Your task to perform on an android device: Add "dell alienware" to the cart on ebay Image 0: 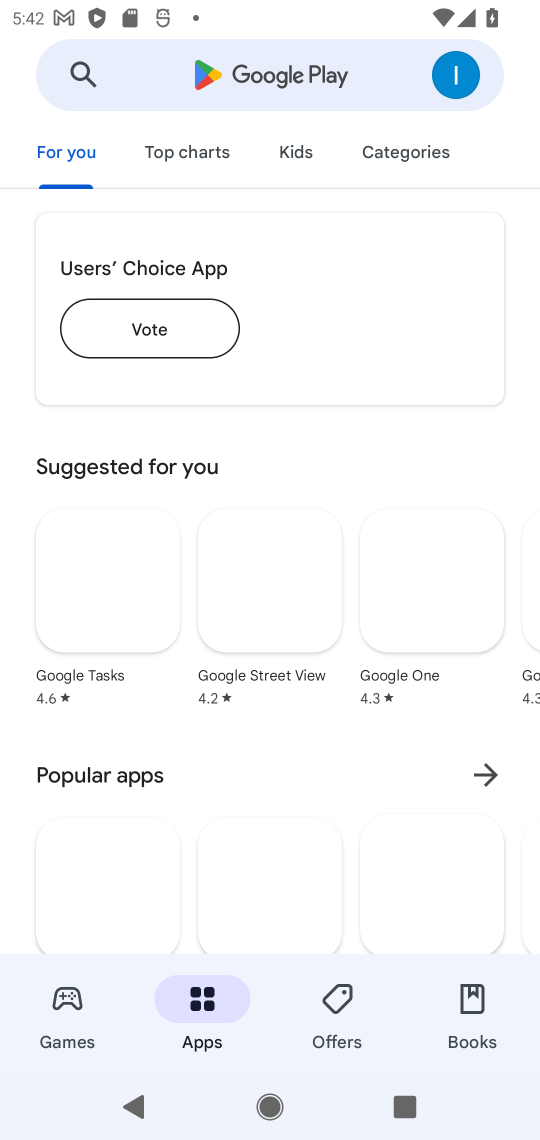
Step 0: press home button
Your task to perform on an android device: Add "dell alienware" to the cart on ebay Image 1: 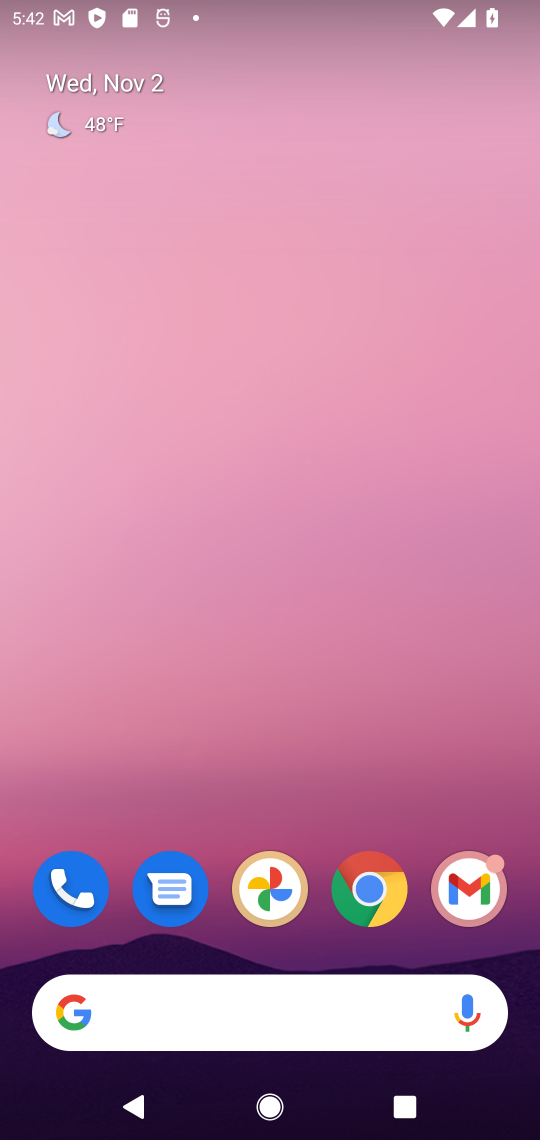
Step 1: click (364, 872)
Your task to perform on an android device: Add "dell alienware" to the cart on ebay Image 2: 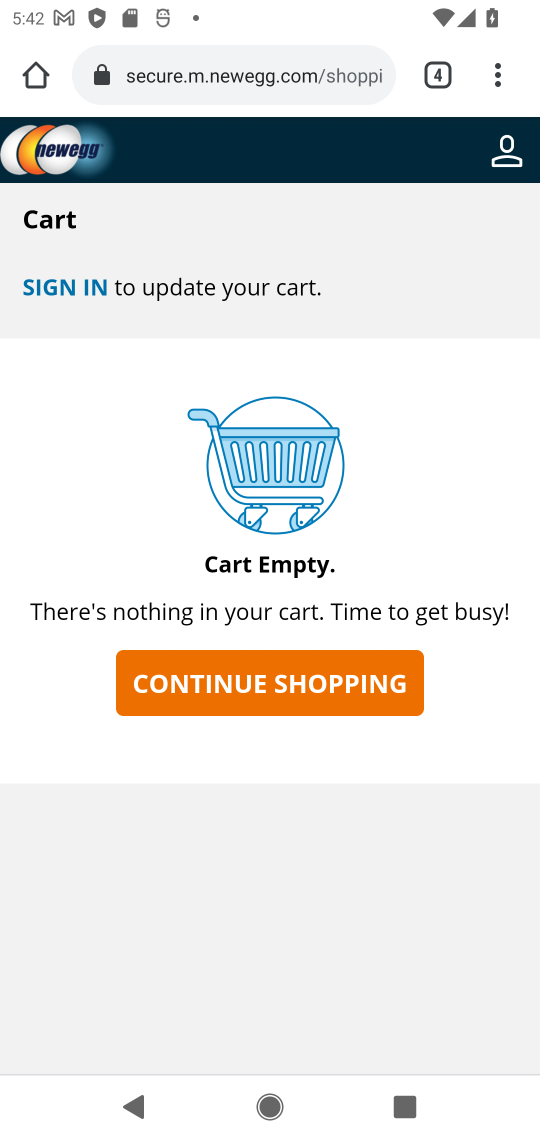
Step 2: click (295, 71)
Your task to perform on an android device: Add "dell alienware" to the cart on ebay Image 3: 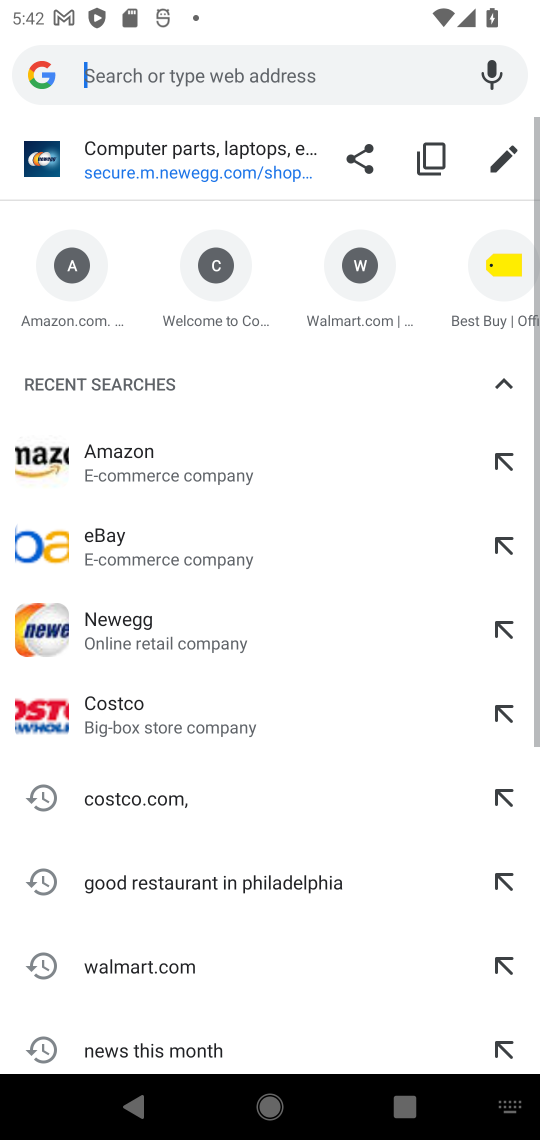
Step 3: click (88, 544)
Your task to perform on an android device: Add "dell alienware" to the cart on ebay Image 4: 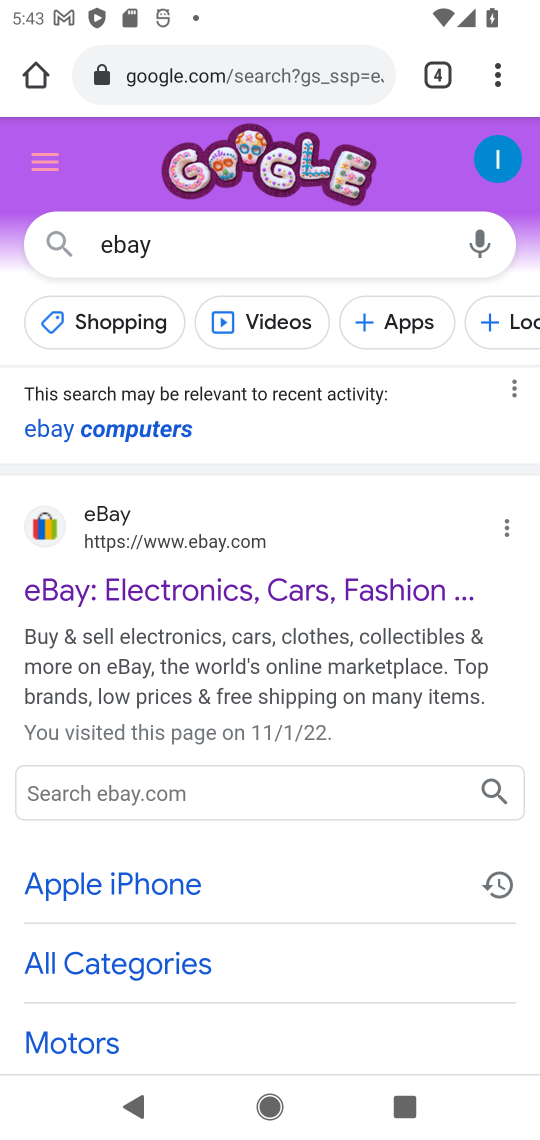
Step 4: click (142, 599)
Your task to perform on an android device: Add "dell alienware" to the cart on ebay Image 5: 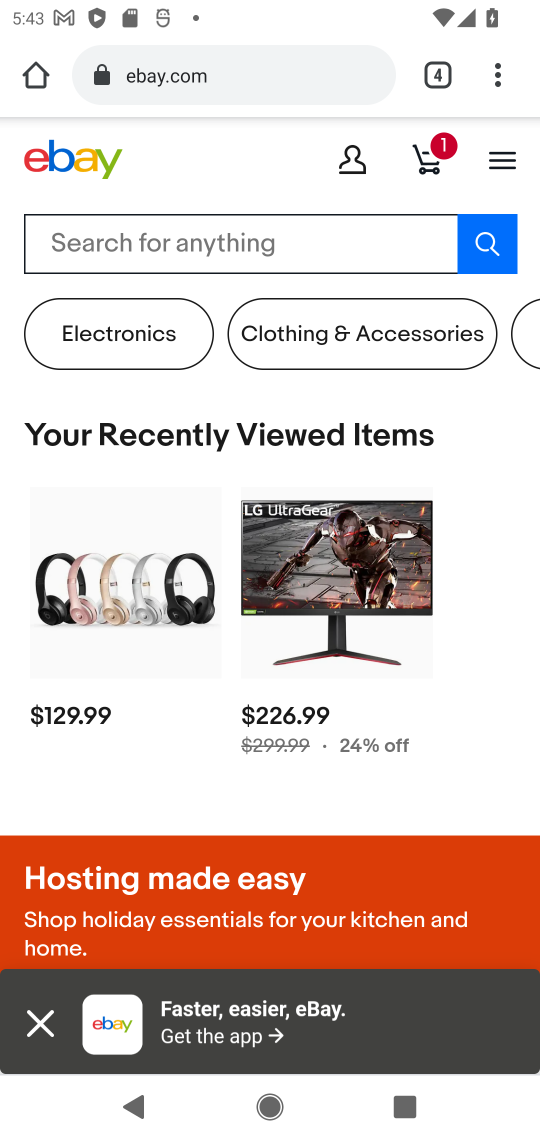
Step 5: click (166, 239)
Your task to perform on an android device: Add "dell alienware" to the cart on ebay Image 6: 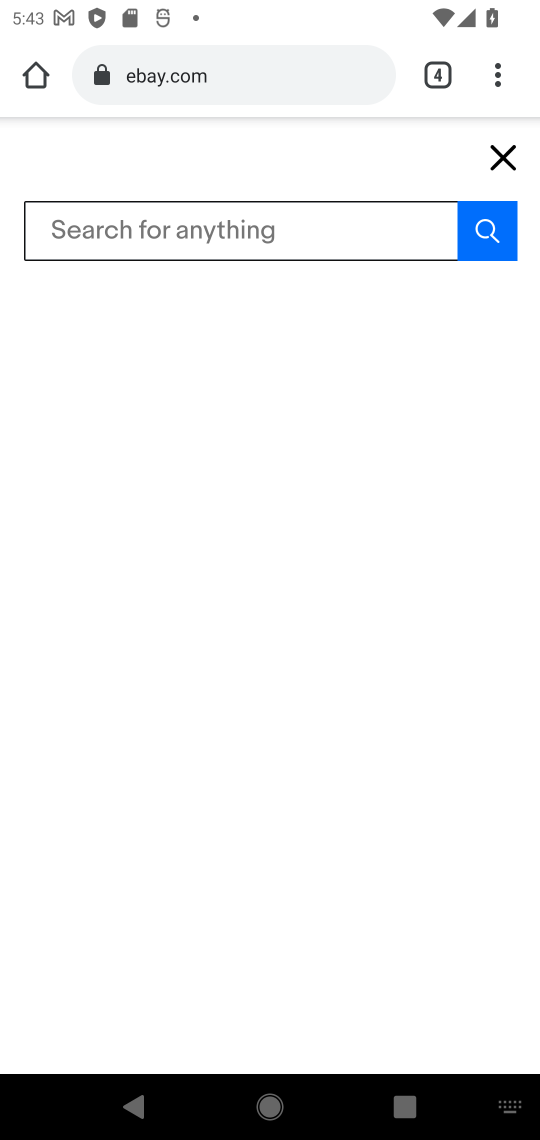
Step 6: type "dell alienware"
Your task to perform on an android device: Add "dell alienware" to the cart on ebay Image 7: 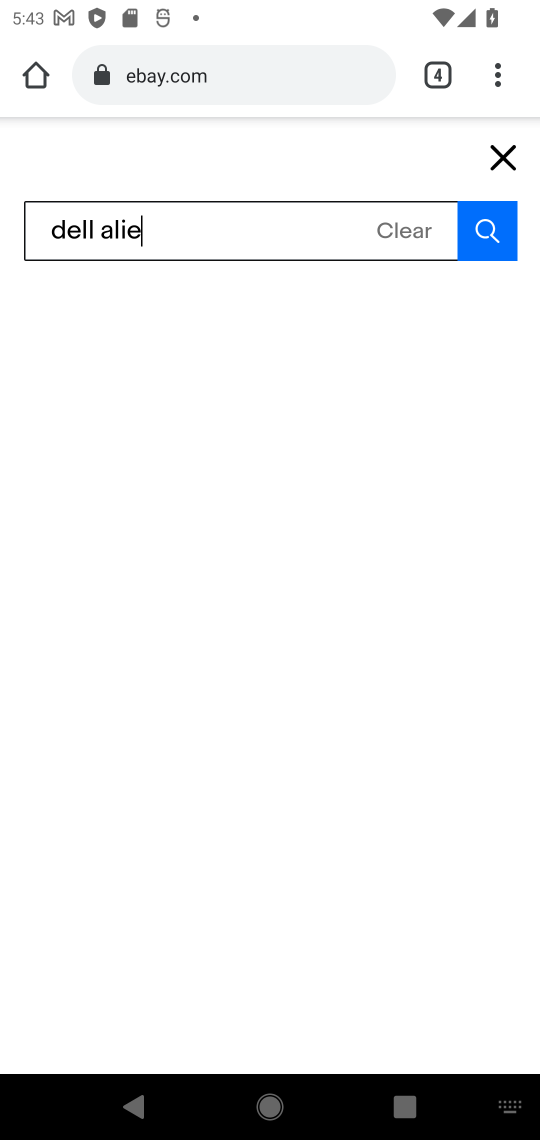
Step 7: press enter
Your task to perform on an android device: Add "dell alienware" to the cart on ebay Image 8: 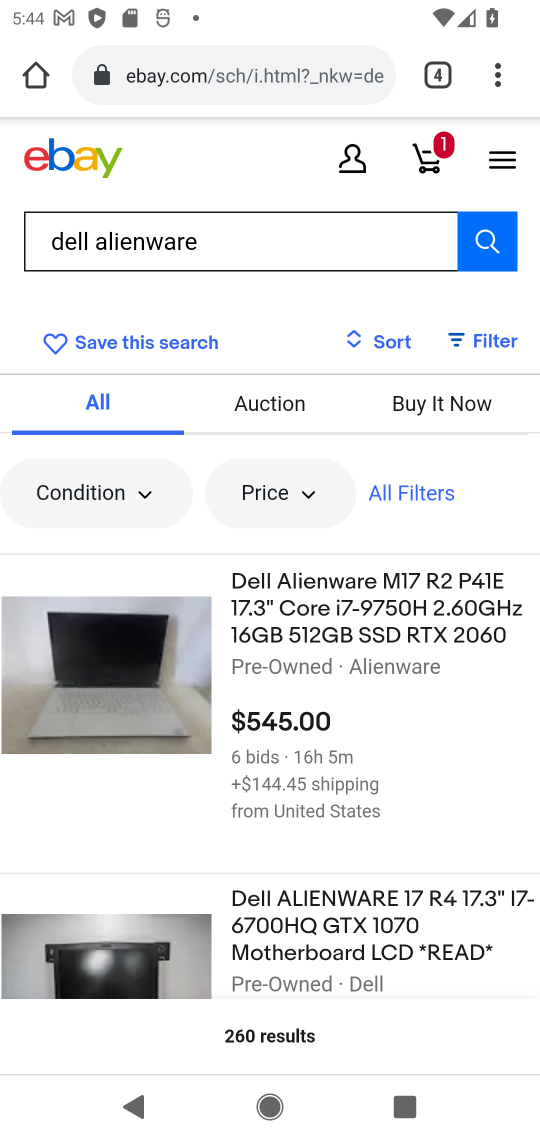
Step 8: click (353, 704)
Your task to perform on an android device: Add "dell alienware" to the cart on ebay Image 9: 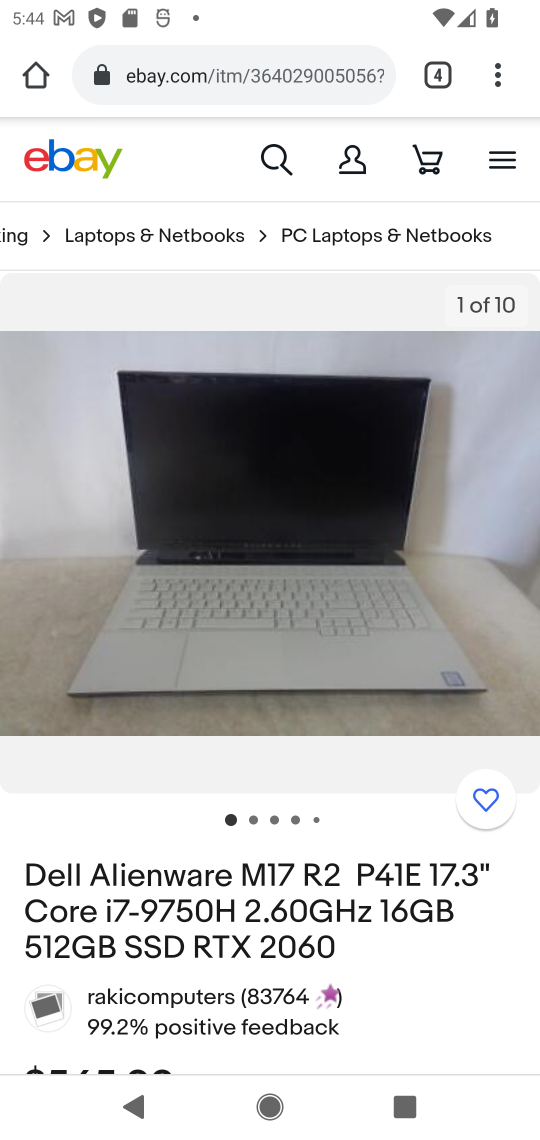
Step 9: drag from (256, 950) to (366, 110)
Your task to perform on an android device: Add "dell alienware" to the cart on ebay Image 10: 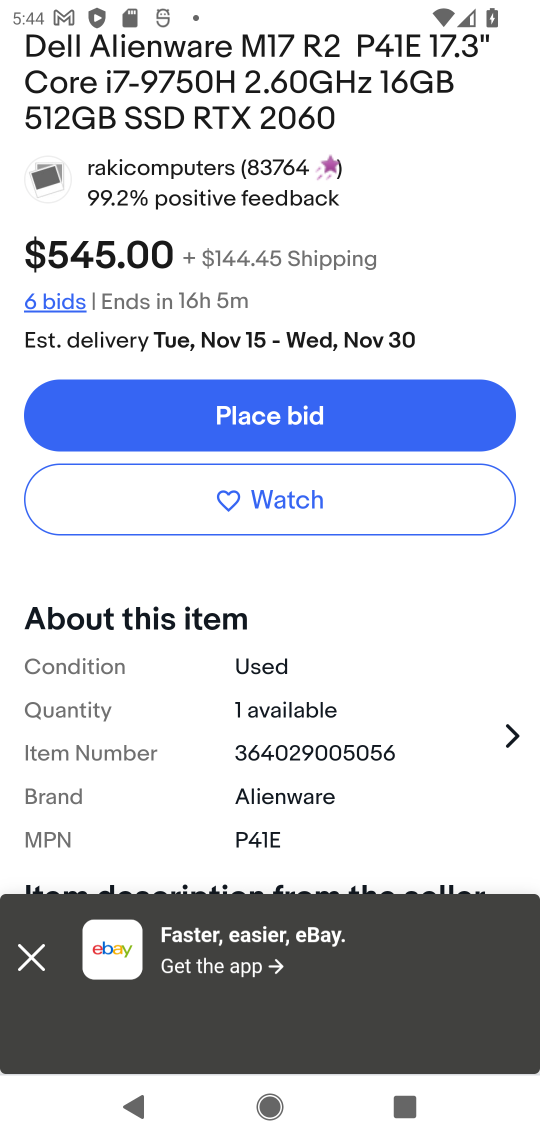
Step 10: drag from (297, 668) to (394, 25)
Your task to perform on an android device: Add "dell alienware" to the cart on ebay Image 11: 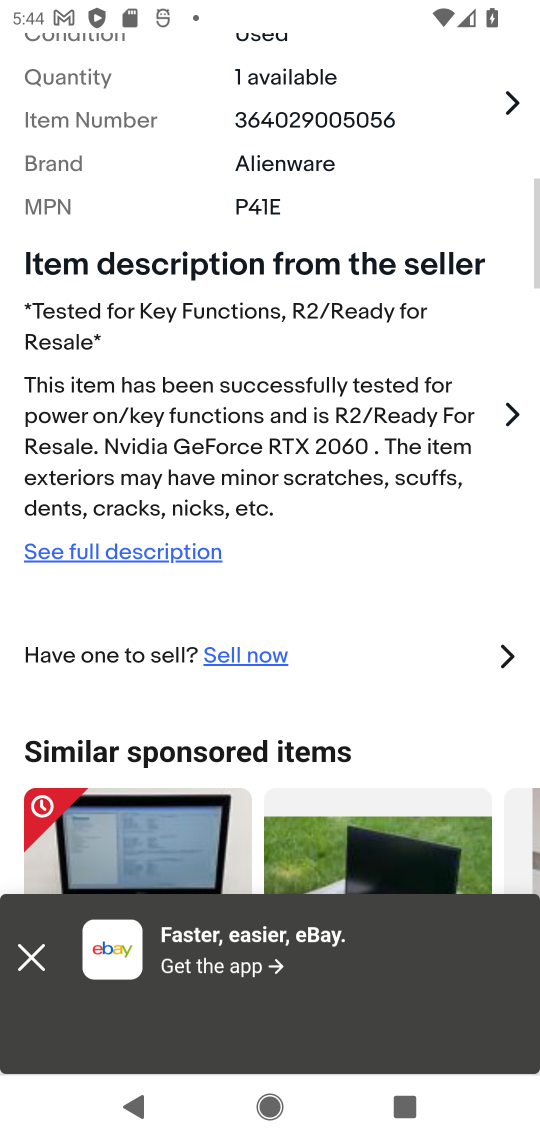
Step 11: drag from (351, 609) to (283, 767)
Your task to perform on an android device: Add "dell alienware" to the cart on ebay Image 12: 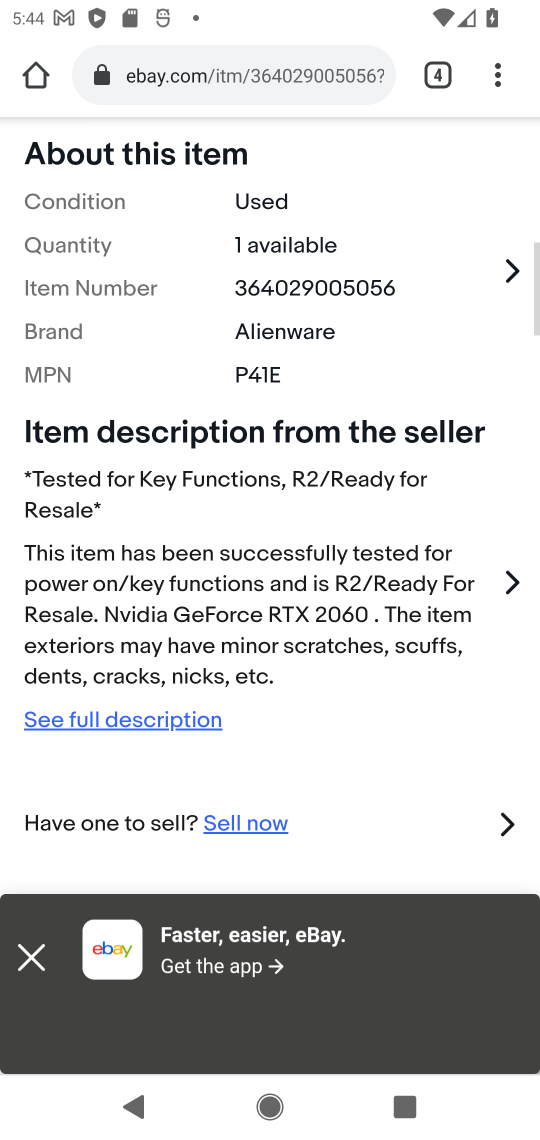
Step 12: drag from (308, 409) to (242, 748)
Your task to perform on an android device: Add "dell alienware" to the cart on ebay Image 13: 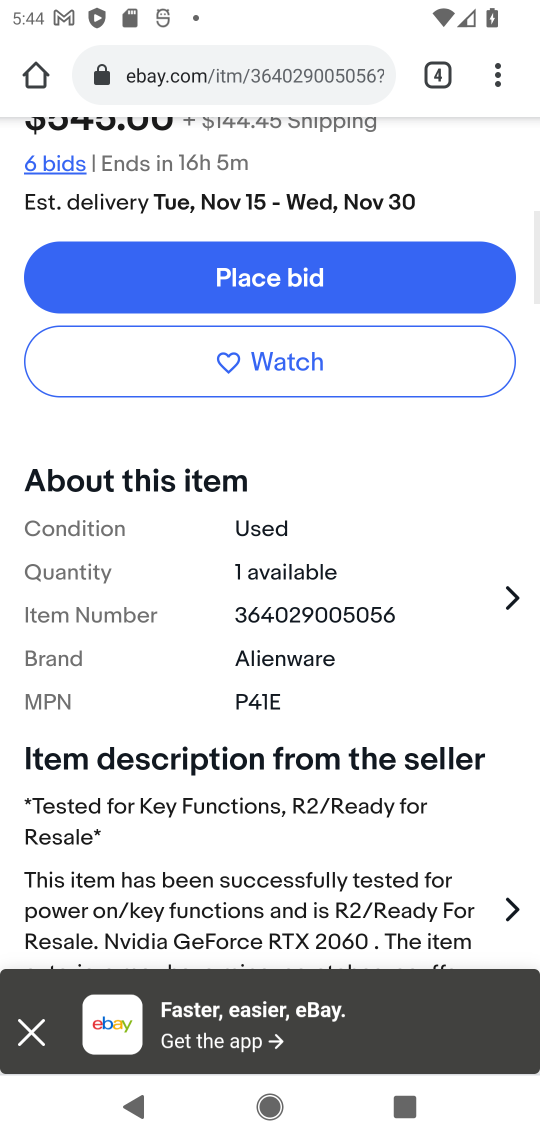
Step 13: drag from (309, 529) to (166, 870)
Your task to perform on an android device: Add "dell alienware" to the cart on ebay Image 14: 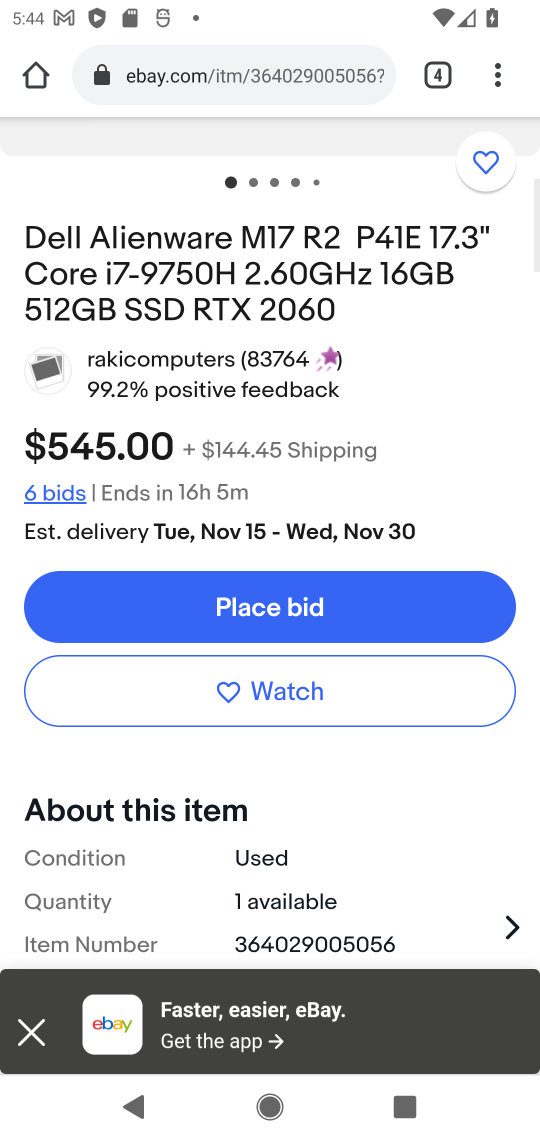
Step 14: drag from (363, 278) to (333, 511)
Your task to perform on an android device: Add "dell alienware" to the cart on ebay Image 15: 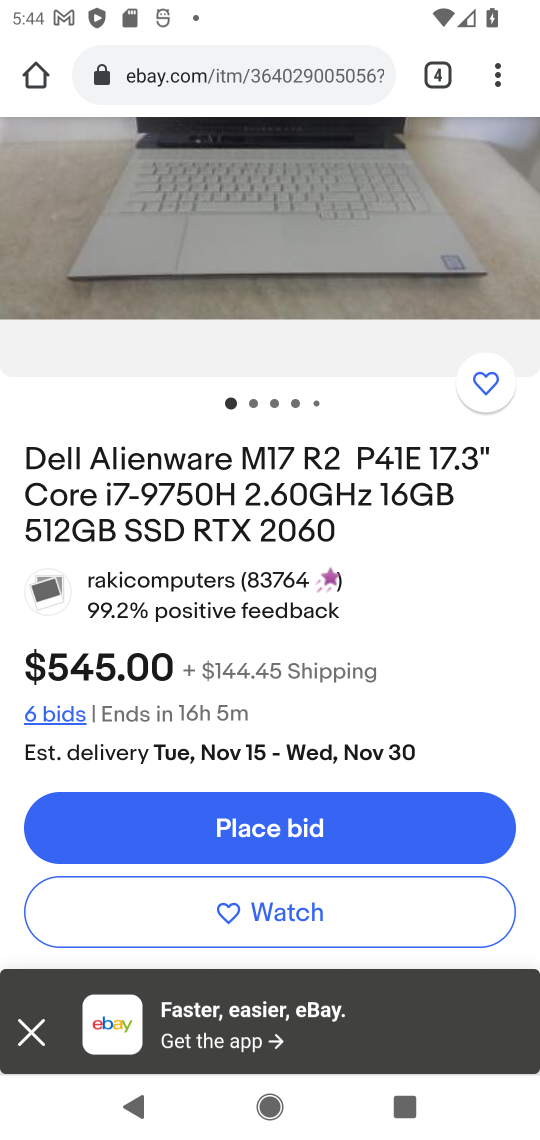
Step 15: click (260, 839)
Your task to perform on an android device: Add "dell alienware" to the cart on ebay Image 16: 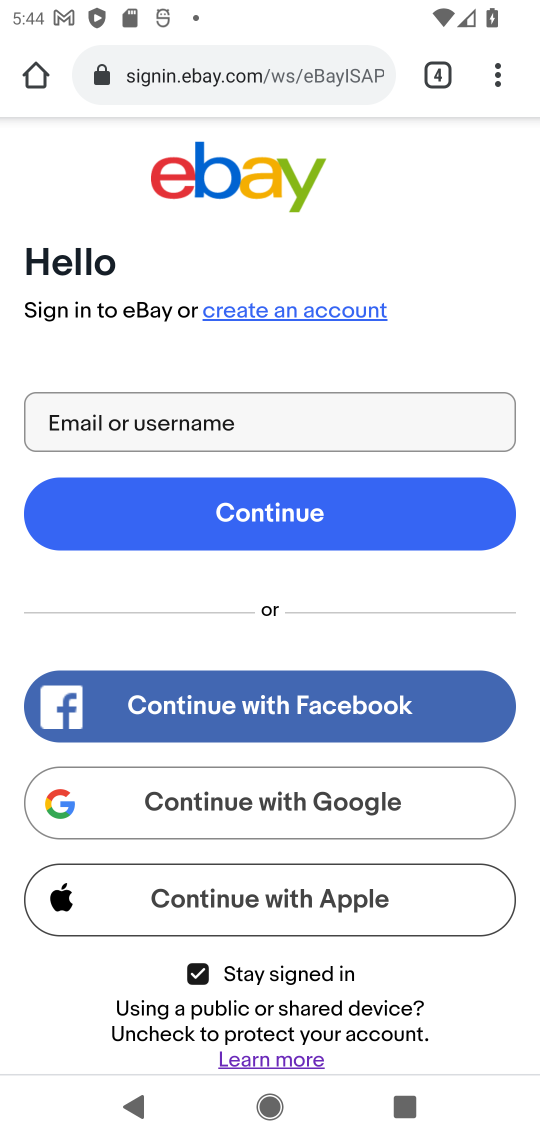
Step 16: task complete